Your task to perform on an android device: Set the phone to "Do not disturb". Image 0: 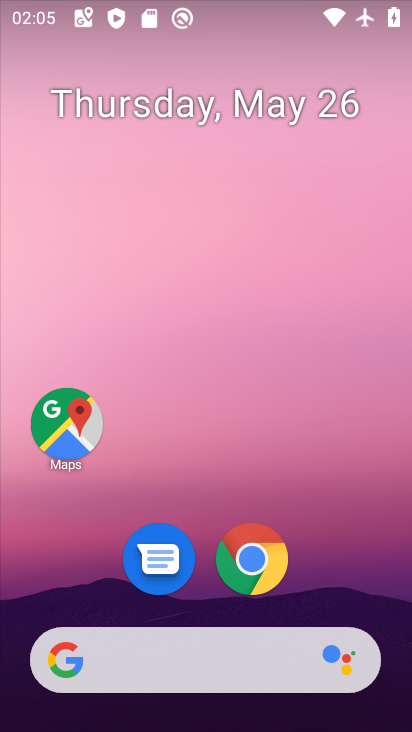
Step 0: press home button
Your task to perform on an android device: Set the phone to "Do not disturb". Image 1: 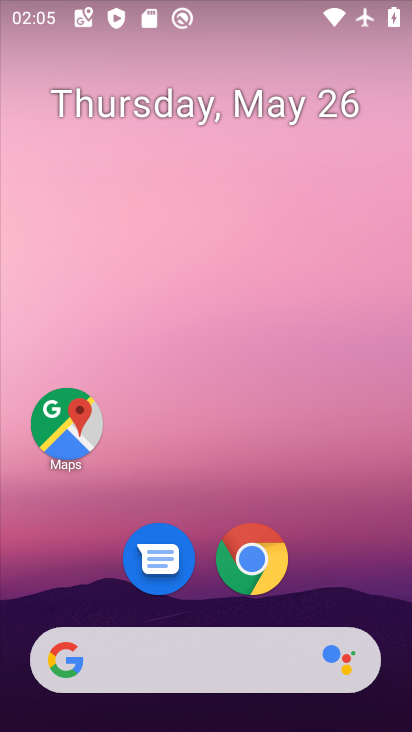
Step 1: drag from (201, 665) to (259, 133)
Your task to perform on an android device: Set the phone to "Do not disturb". Image 2: 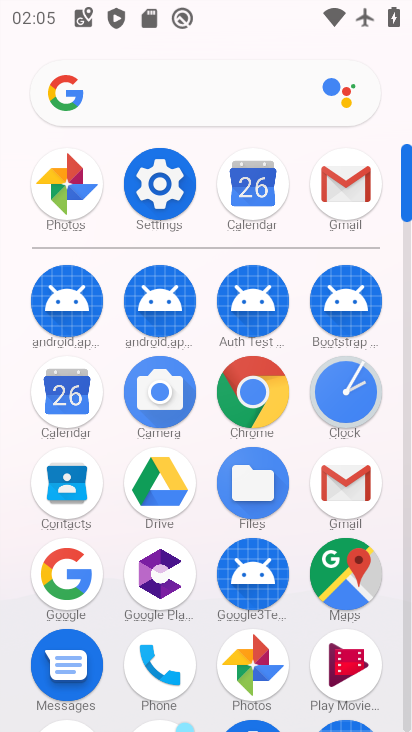
Step 2: click (175, 177)
Your task to perform on an android device: Set the phone to "Do not disturb". Image 3: 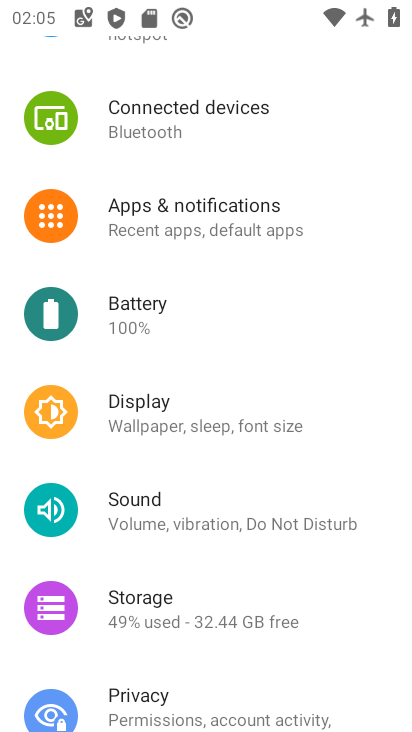
Step 3: drag from (239, 636) to (289, 263)
Your task to perform on an android device: Set the phone to "Do not disturb". Image 4: 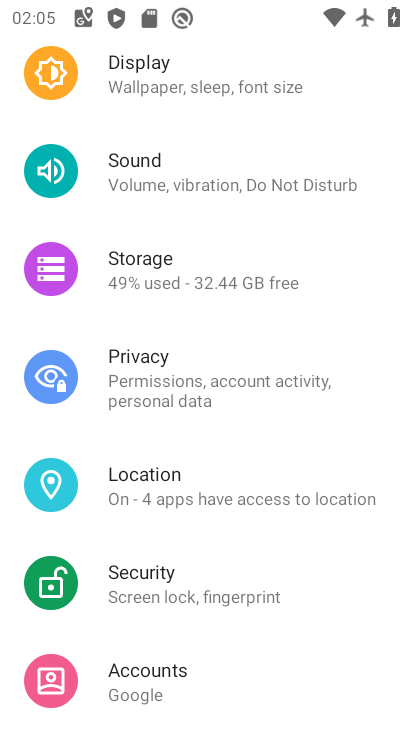
Step 4: click (161, 161)
Your task to perform on an android device: Set the phone to "Do not disturb". Image 5: 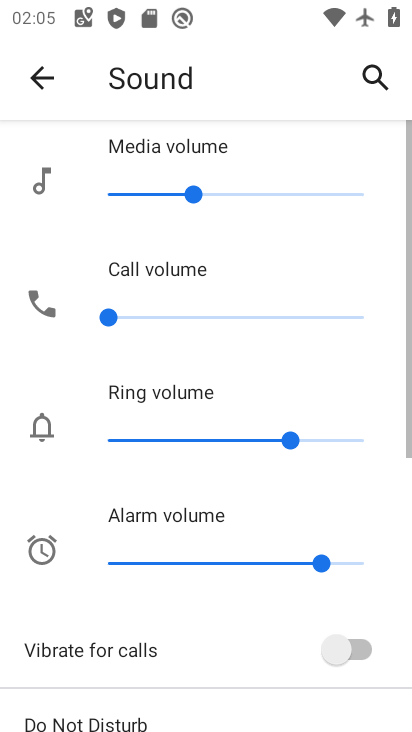
Step 5: drag from (179, 613) to (310, 141)
Your task to perform on an android device: Set the phone to "Do not disturb". Image 6: 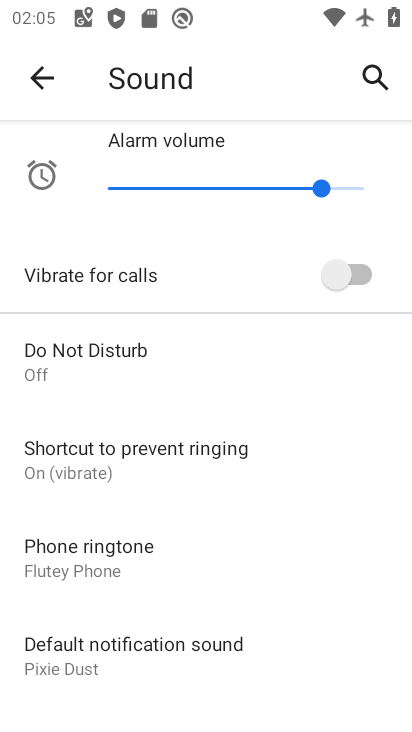
Step 6: click (84, 351)
Your task to perform on an android device: Set the phone to "Do not disturb". Image 7: 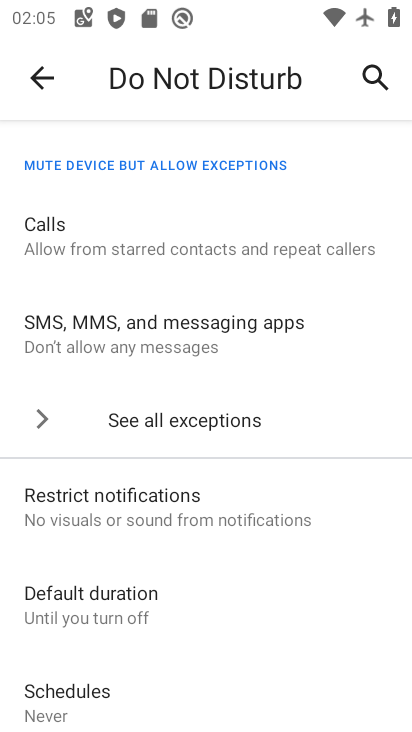
Step 7: drag from (144, 574) to (276, 190)
Your task to perform on an android device: Set the phone to "Do not disturb". Image 8: 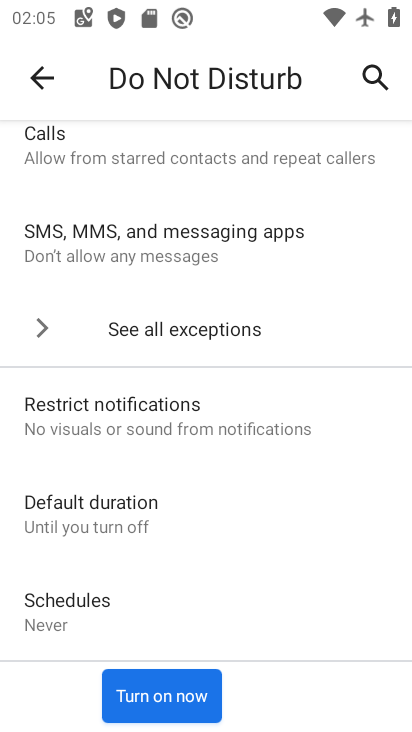
Step 8: click (176, 687)
Your task to perform on an android device: Set the phone to "Do not disturb". Image 9: 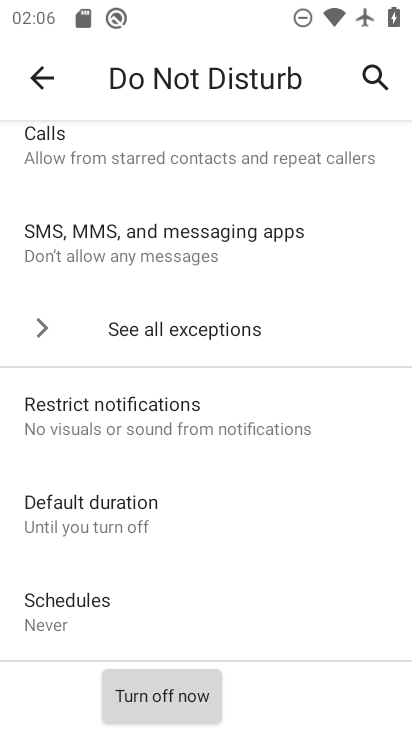
Step 9: task complete